Your task to perform on an android device: Open wifi settings Image 0: 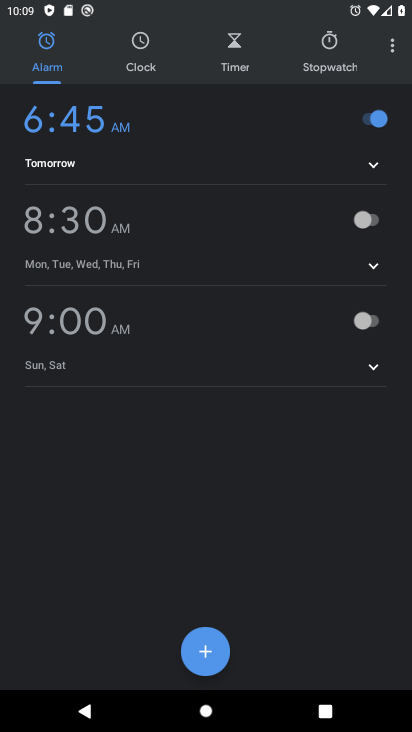
Step 0: press back button
Your task to perform on an android device: Open wifi settings Image 1: 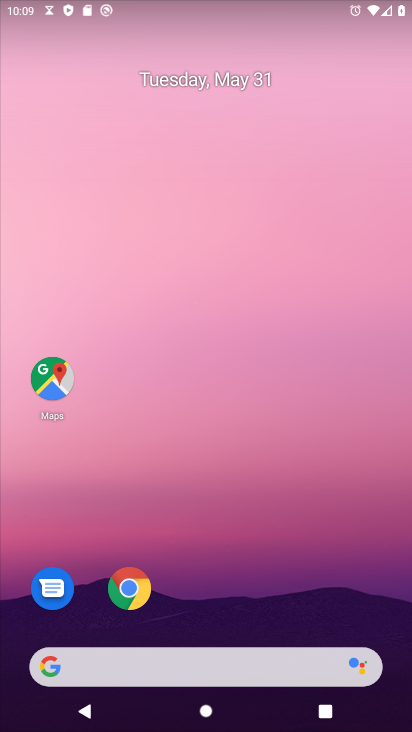
Step 1: drag from (301, 549) to (195, 160)
Your task to perform on an android device: Open wifi settings Image 2: 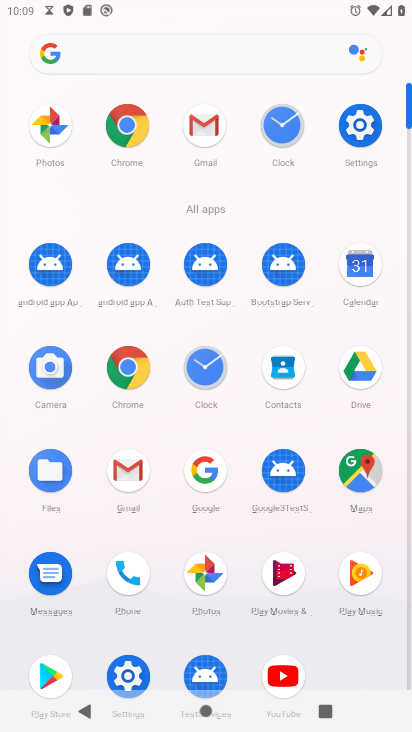
Step 2: click (362, 125)
Your task to perform on an android device: Open wifi settings Image 3: 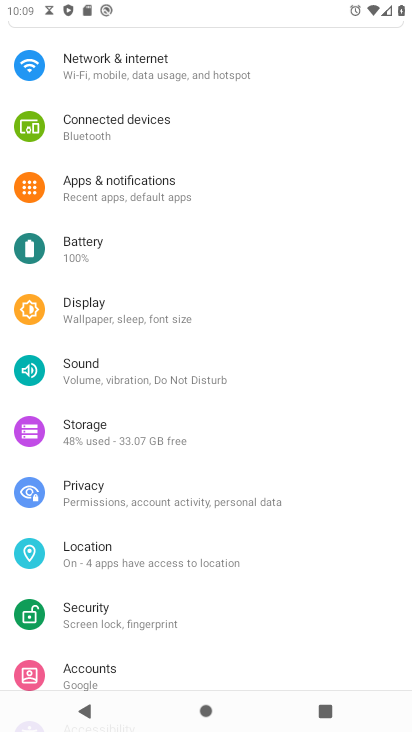
Step 3: drag from (192, 102) to (183, 295)
Your task to perform on an android device: Open wifi settings Image 4: 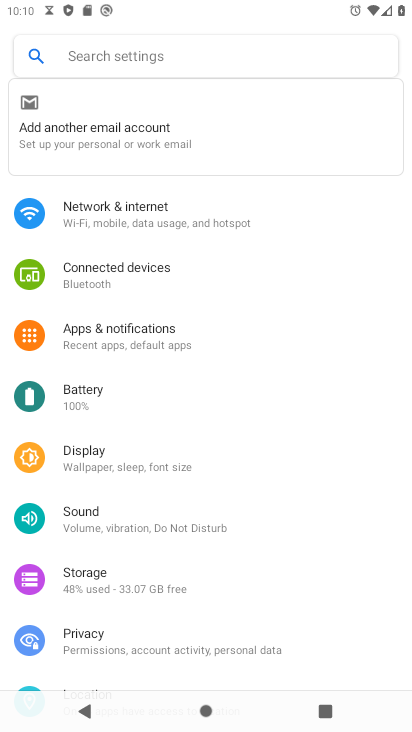
Step 4: click (114, 208)
Your task to perform on an android device: Open wifi settings Image 5: 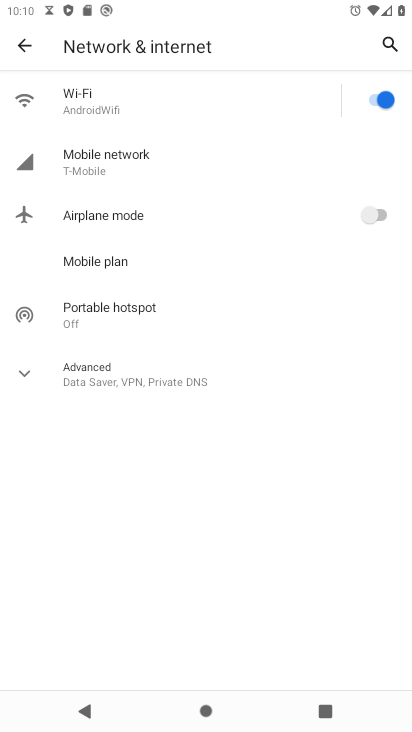
Step 5: click (91, 111)
Your task to perform on an android device: Open wifi settings Image 6: 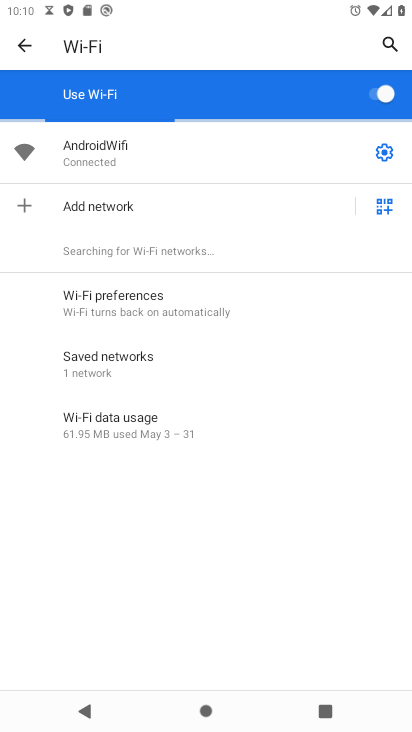
Step 6: click (388, 155)
Your task to perform on an android device: Open wifi settings Image 7: 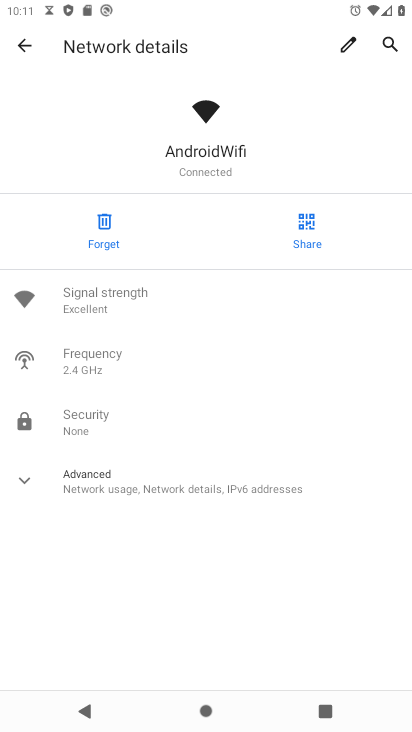
Step 7: task complete